Your task to perform on an android device: Do I have any events tomorrow? Image 0: 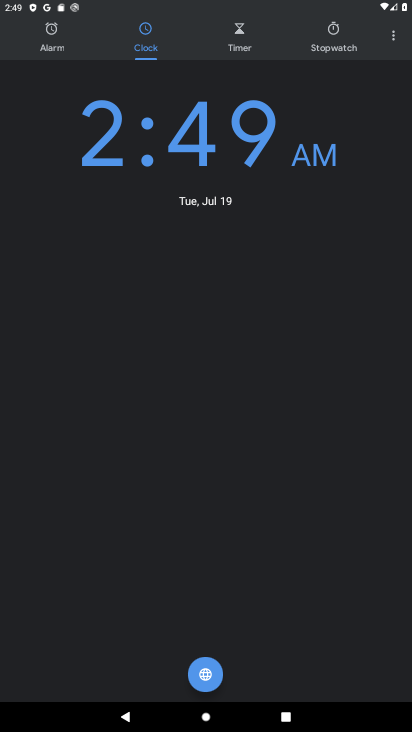
Step 0: press home button
Your task to perform on an android device: Do I have any events tomorrow? Image 1: 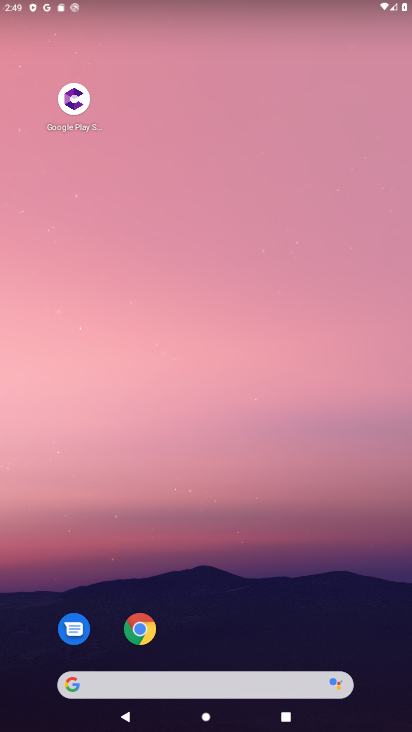
Step 1: drag from (257, 642) to (260, 25)
Your task to perform on an android device: Do I have any events tomorrow? Image 2: 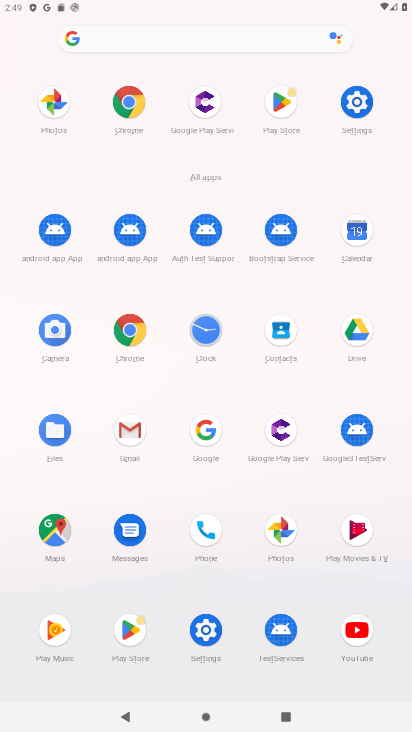
Step 2: click (362, 241)
Your task to perform on an android device: Do I have any events tomorrow? Image 3: 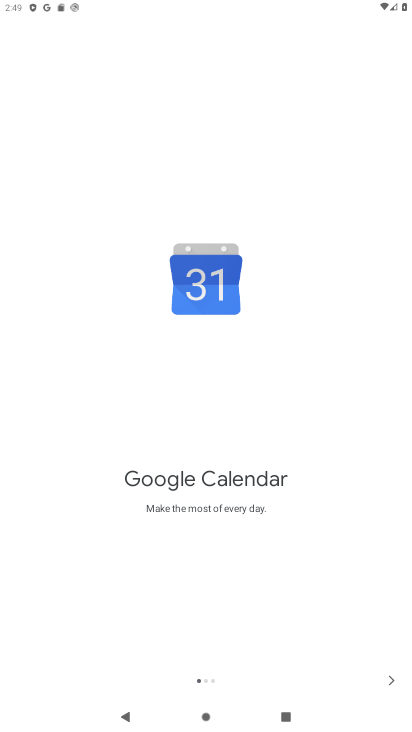
Step 3: click (393, 673)
Your task to perform on an android device: Do I have any events tomorrow? Image 4: 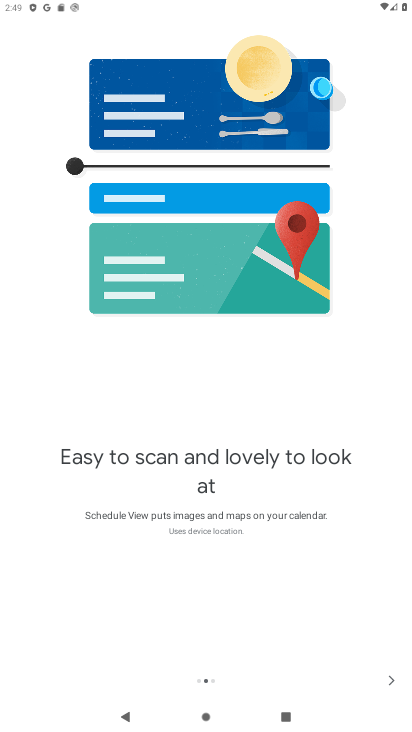
Step 4: click (391, 682)
Your task to perform on an android device: Do I have any events tomorrow? Image 5: 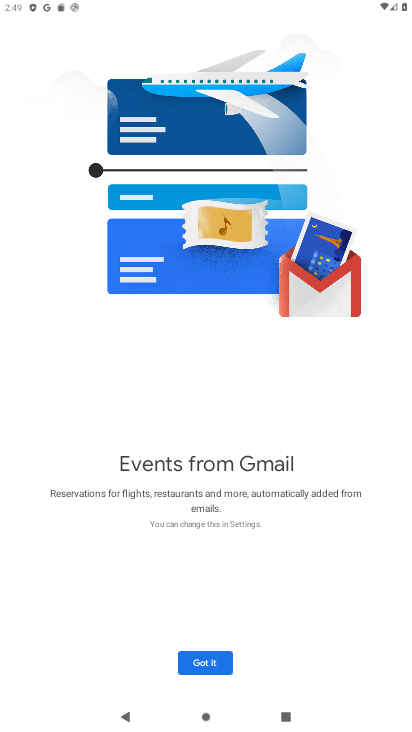
Step 5: click (223, 662)
Your task to perform on an android device: Do I have any events tomorrow? Image 6: 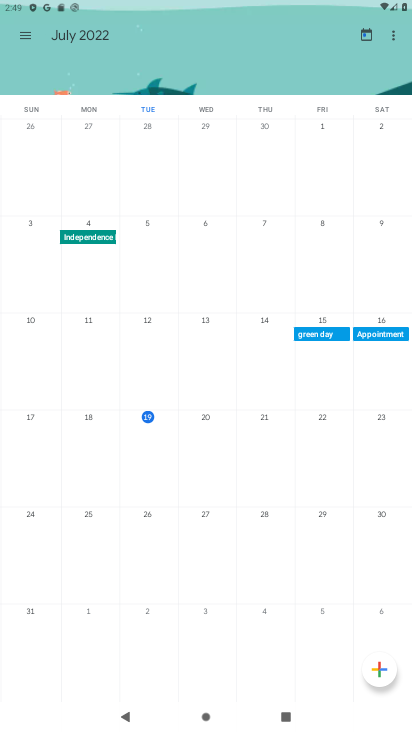
Step 6: click (25, 33)
Your task to perform on an android device: Do I have any events tomorrow? Image 7: 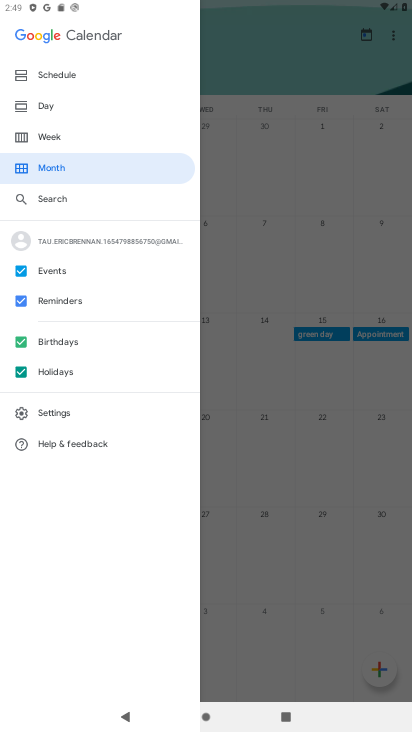
Step 7: click (18, 371)
Your task to perform on an android device: Do I have any events tomorrow? Image 8: 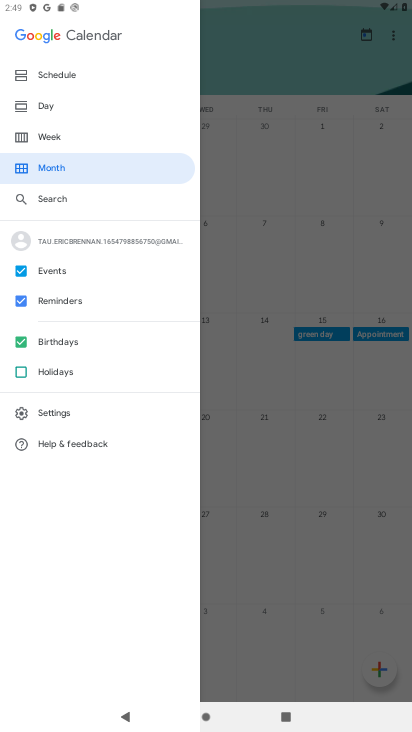
Step 8: click (18, 337)
Your task to perform on an android device: Do I have any events tomorrow? Image 9: 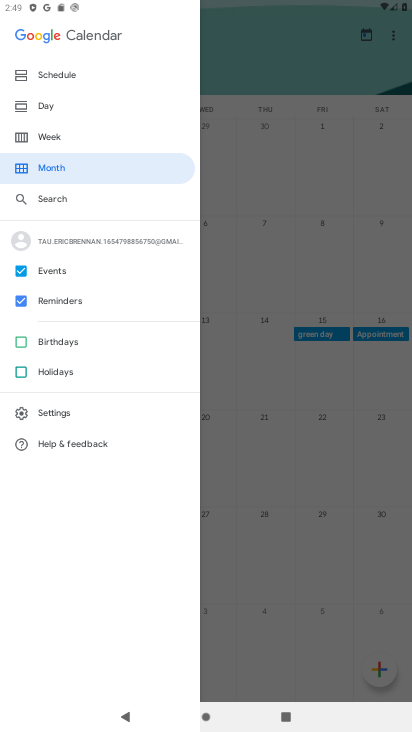
Step 9: click (23, 299)
Your task to perform on an android device: Do I have any events tomorrow? Image 10: 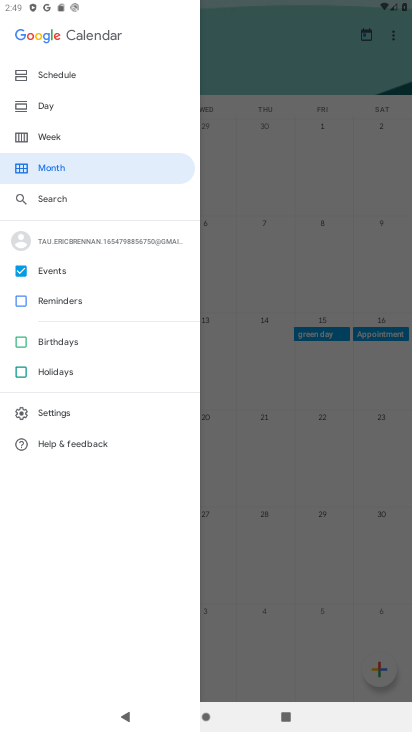
Step 10: click (40, 101)
Your task to perform on an android device: Do I have any events tomorrow? Image 11: 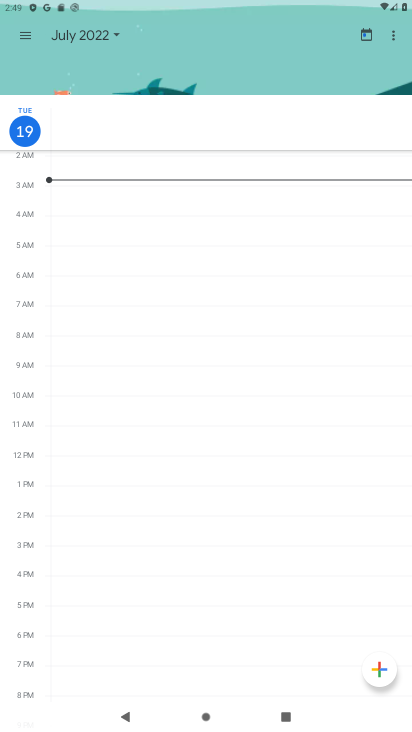
Step 11: task complete